Your task to perform on an android device: Open privacy settings Image 0: 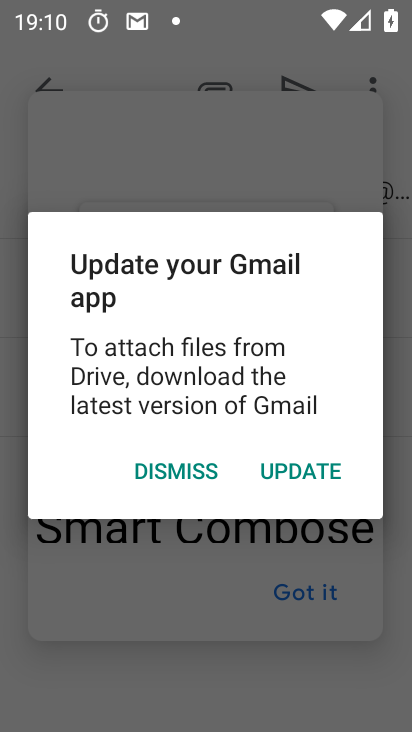
Step 0: press home button
Your task to perform on an android device: Open privacy settings Image 1: 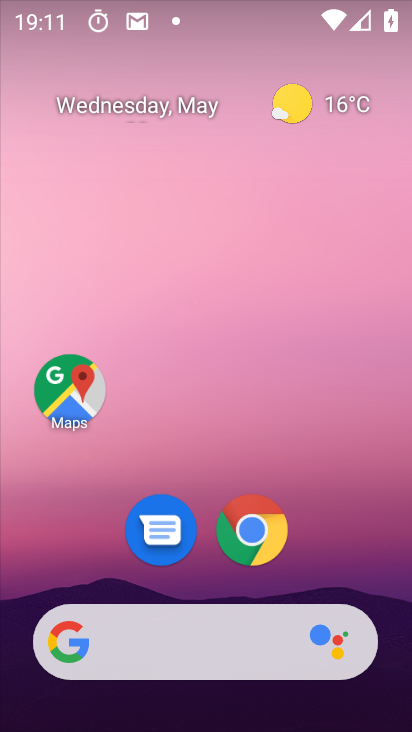
Step 1: drag from (213, 488) to (242, 203)
Your task to perform on an android device: Open privacy settings Image 2: 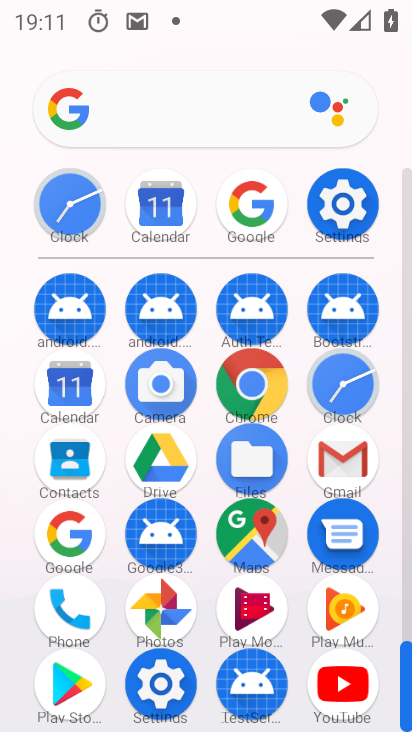
Step 2: click (343, 207)
Your task to perform on an android device: Open privacy settings Image 3: 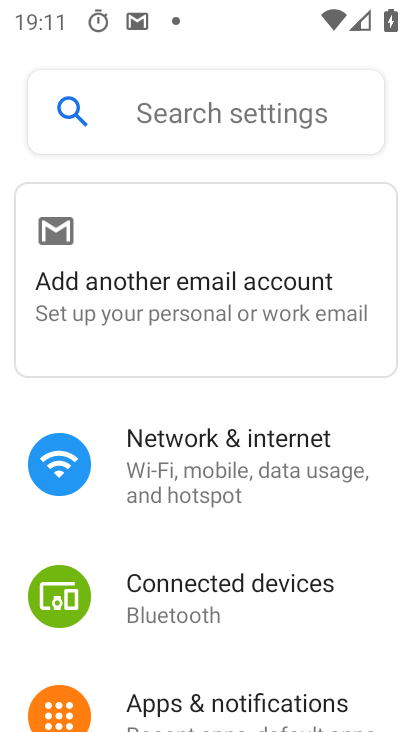
Step 3: drag from (255, 500) to (276, 311)
Your task to perform on an android device: Open privacy settings Image 4: 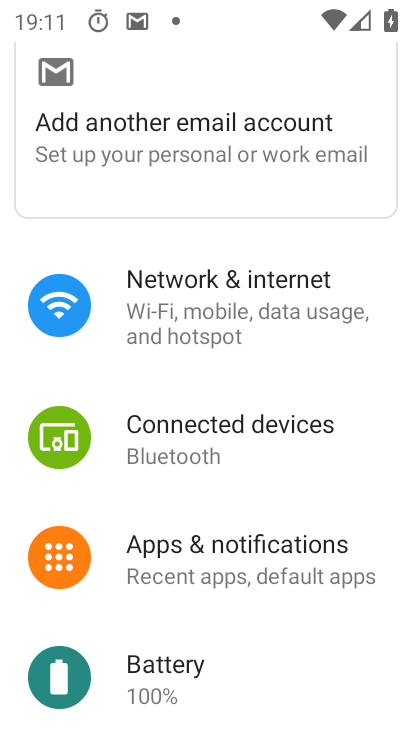
Step 4: drag from (173, 562) to (176, 293)
Your task to perform on an android device: Open privacy settings Image 5: 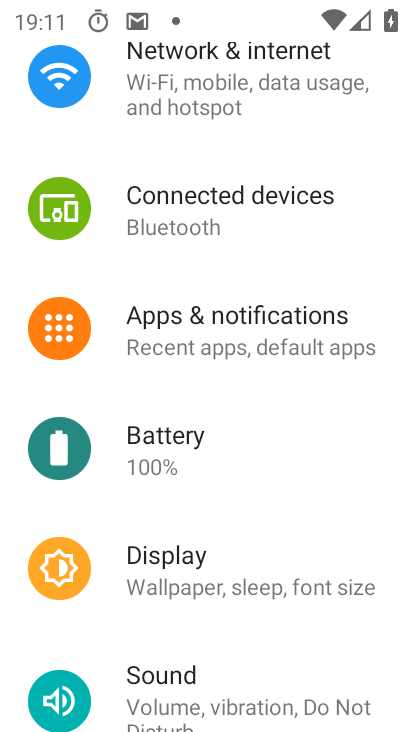
Step 5: drag from (199, 620) to (204, 342)
Your task to perform on an android device: Open privacy settings Image 6: 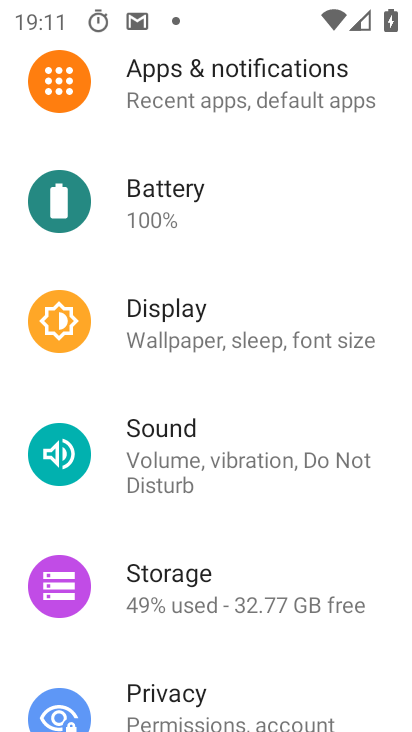
Step 6: click (139, 705)
Your task to perform on an android device: Open privacy settings Image 7: 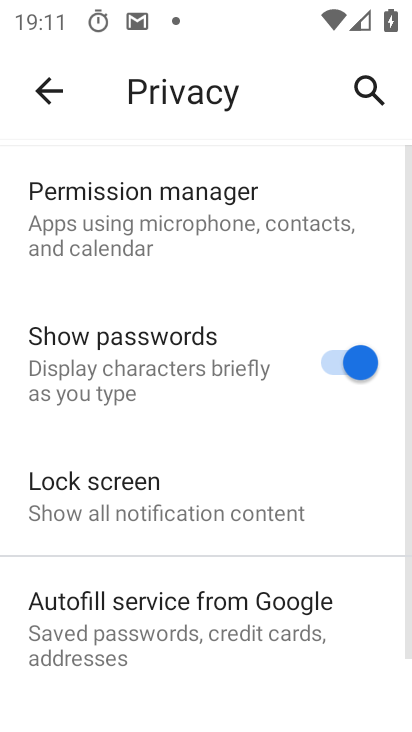
Step 7: task complete